Your task to perform on an android device: check out phone information Image 0: 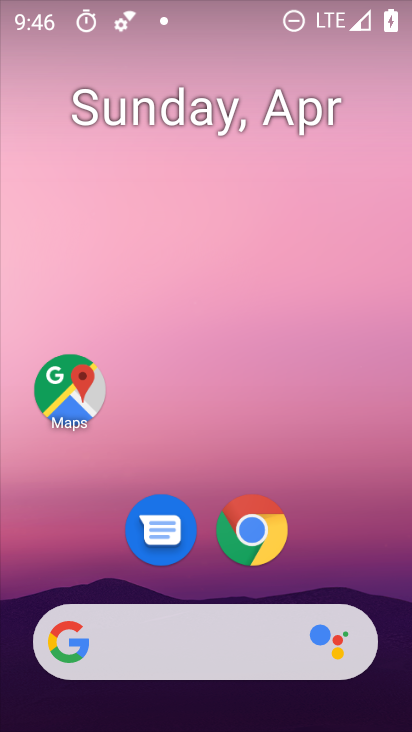
Step 0: drag from (369, 539) to (348, 3)
Your task to perform on an android device: check out phone information Image 1: 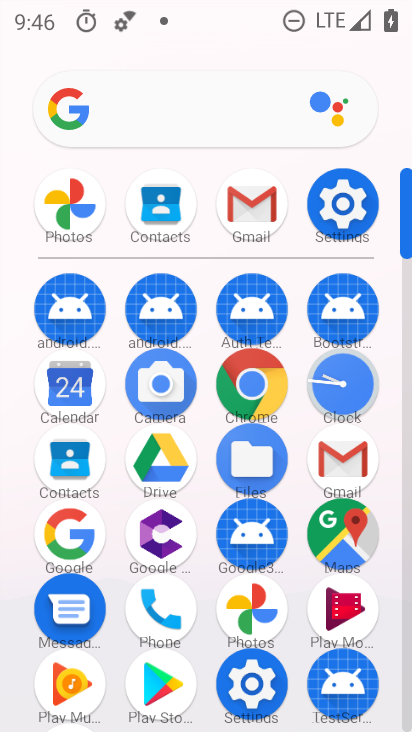
Step 1: click (337, 201)
Your task to perform on an android device: check out phone information Image 2: 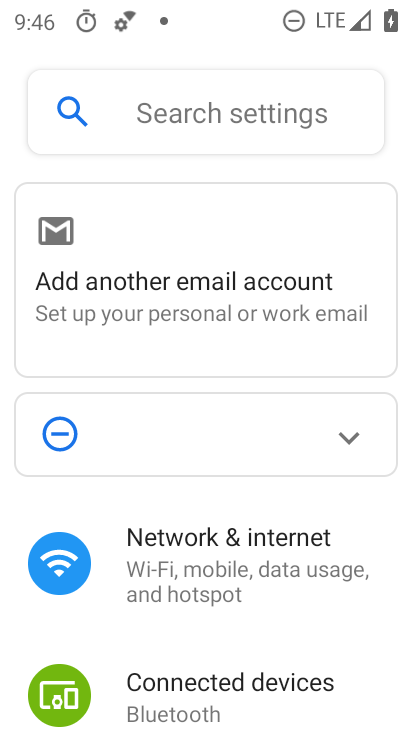
Step 2: drag from (370, 646) to (377, 192)
Your task to perform on an android device: check out phone information Image 3: 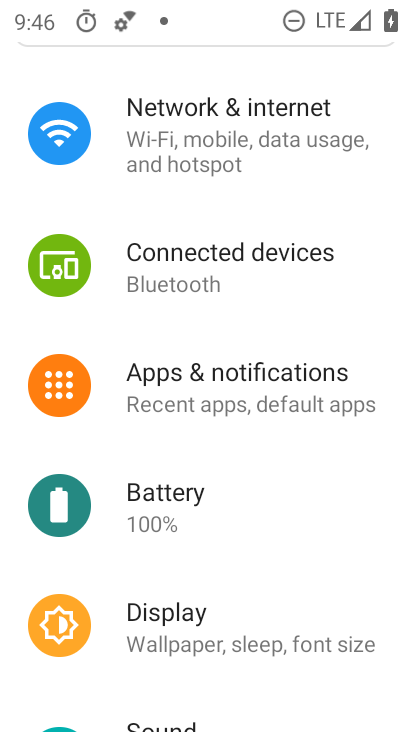
Step 3: drag from (357, 556) to (343, 118)
Your task to perform on an android device: check out phone information Image 4: 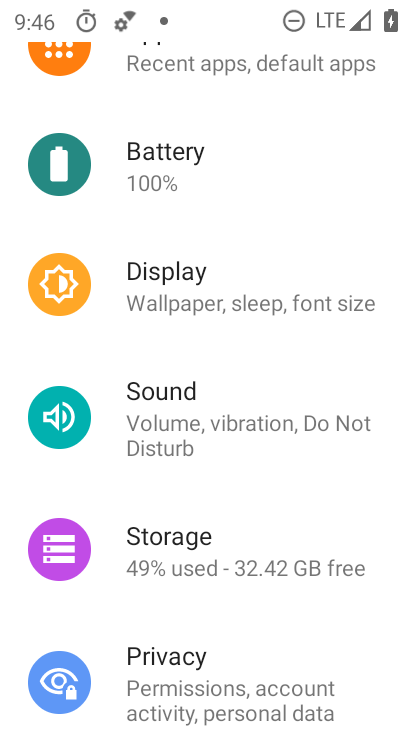
Step 4: drag from (336, 564) to (334, 130)
Your task to perform on an android device: check out phone information Image 5: 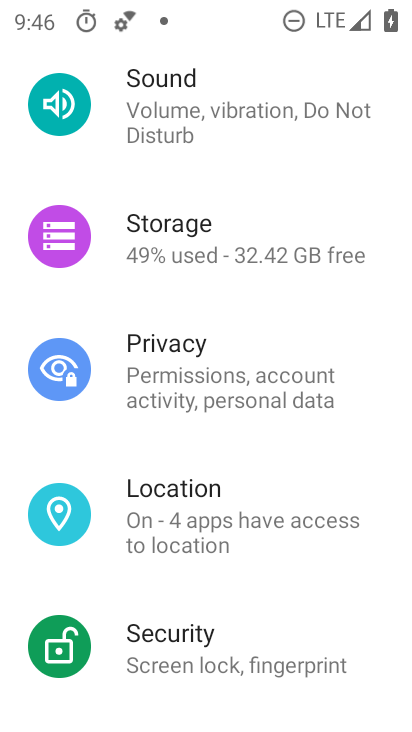
Step 5: drag from (371, 610) to (350, 98)
Your task to perform on an android device: check out phone information Image 6: 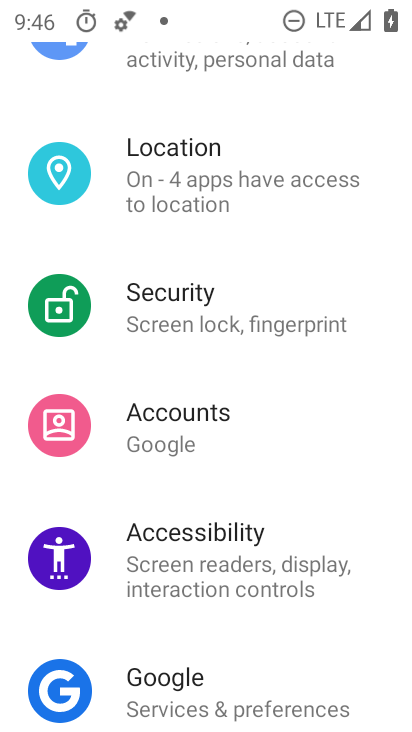
Step 6: drag from (360, 608) to (350, 138)
Your task to perform on an android device: check out phone information Image 7: 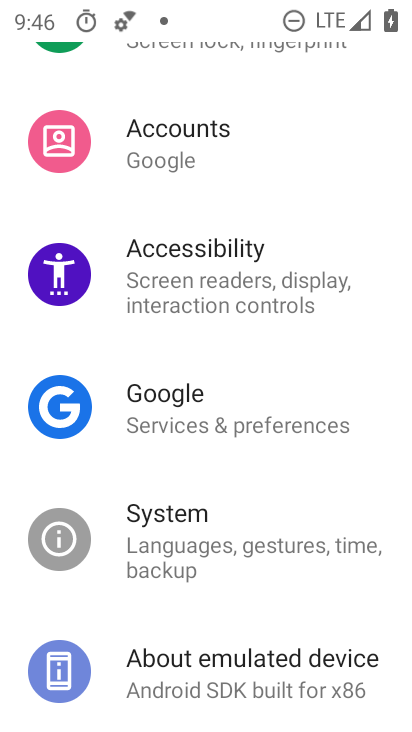
Step 7: click (219, 675)
Your task to perform on an android device: check out phone information Image 8: 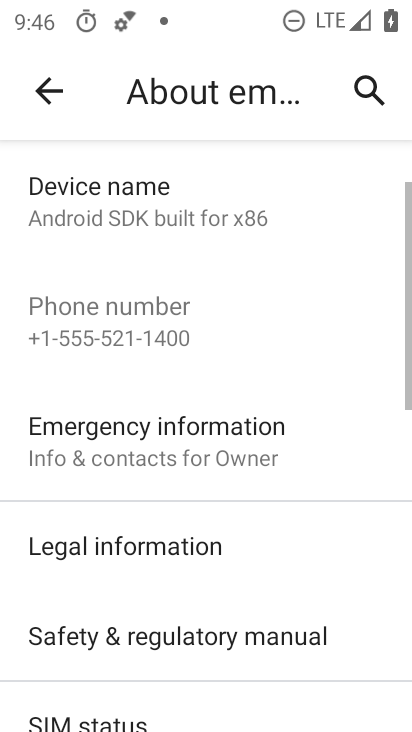
Step 8: task complete